Your task to perform on an android device: Turn off the flashlight Image 0: 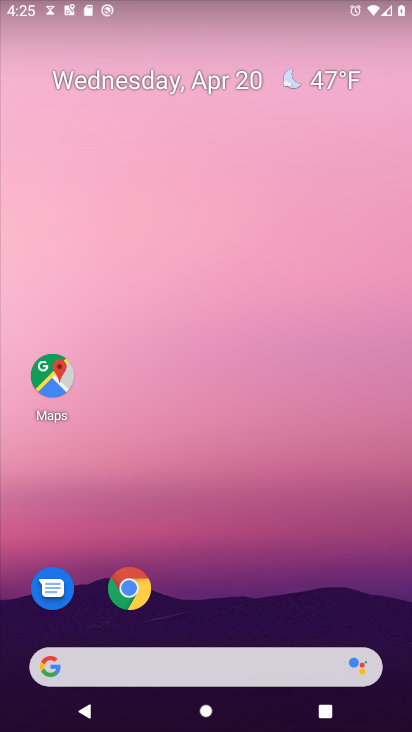
Step 0: drag from (234, 467) to (225, 60)
Your task to perform on an android device: Turn off the flashlight Image 1: 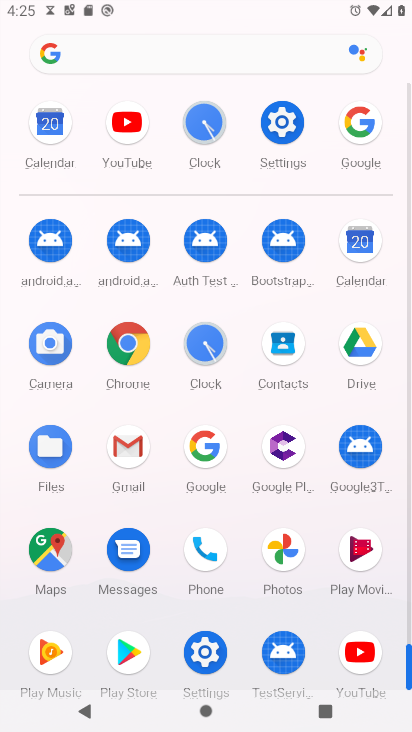
Step 1: click (268, 128)
Your task to perform on an android device: Turn off the flashlight Image 2: 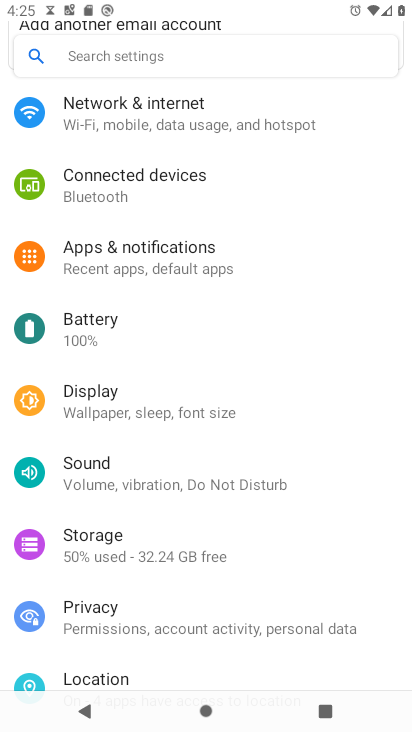
Step 2: task complete